Your task to perform on an android device: Search for Mexican restaurants on Maps Image 0: 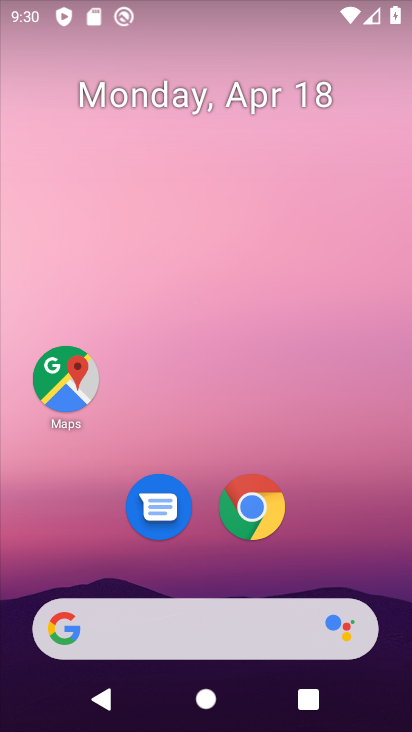
Step 0: click (53, 374)
Your task to perform on an android device: Search for Mexican restaurants on Maps Image 1: 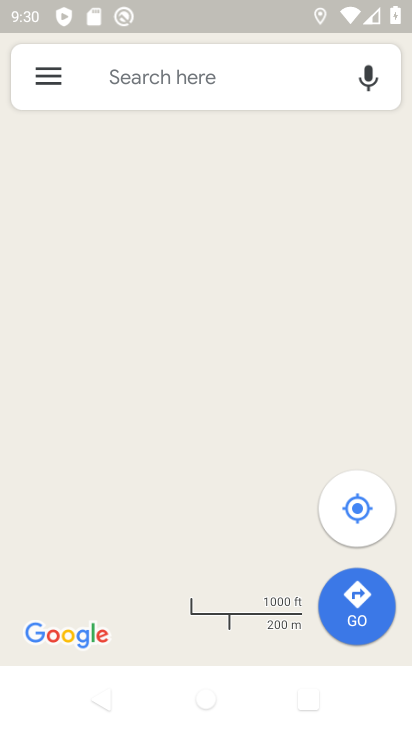
Step 1: click (190, 78)
Your task to perform on an android device: Search for Mexican restaurants on Maps Image 2: 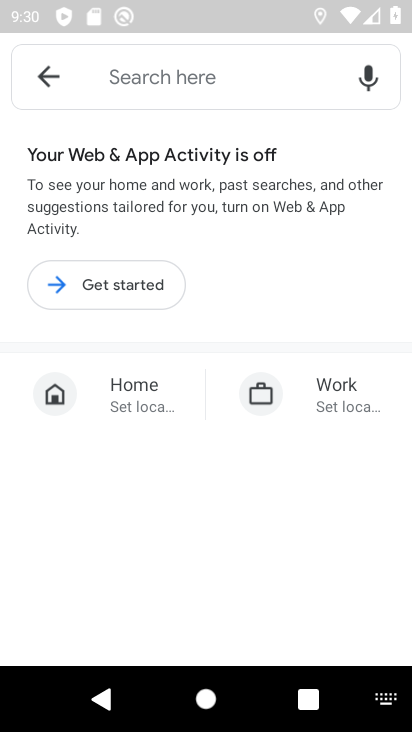
Step 2: click (116, 266)
Your task to perform on an android device: Search for Mexican restaurants on Maps Image 3: 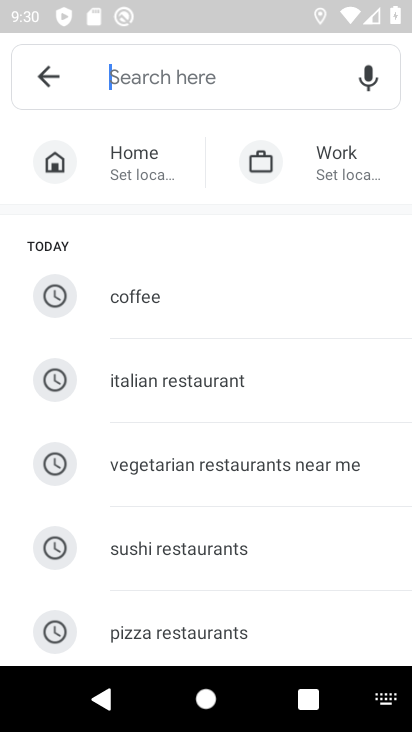
Step 3: drag from (243, 549) to (197, 264)
Your task to perform on an android device: Search for Mexican restaurants on Maps Image 4: 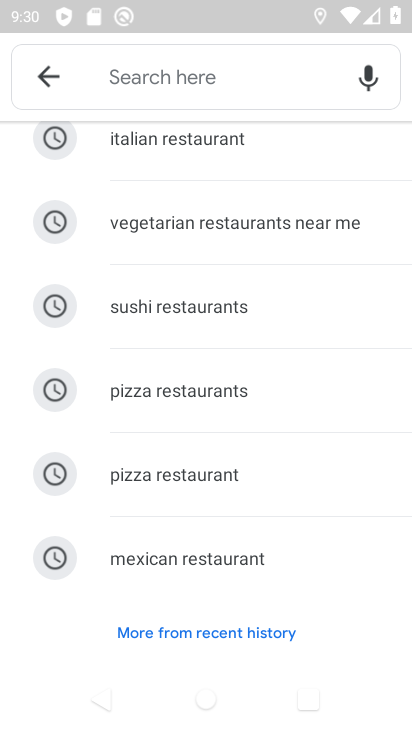
Step 4: click (206, 555)
Your task to perform on an android device: Search for Mexican restaurants on Maps Image 5: 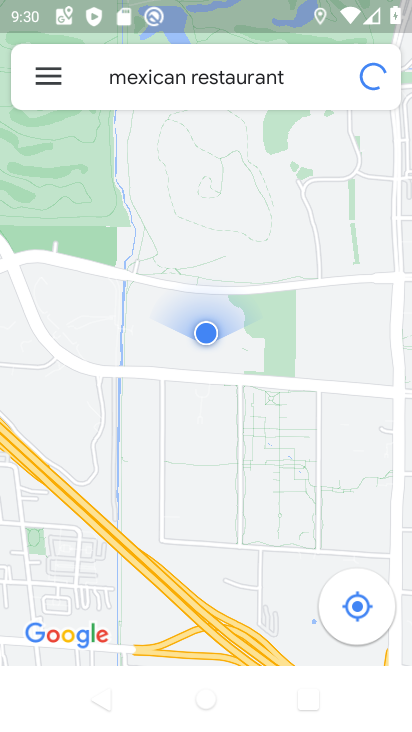
Step 5: task complete